Your task to perform on an android device: Open maps Image 0: 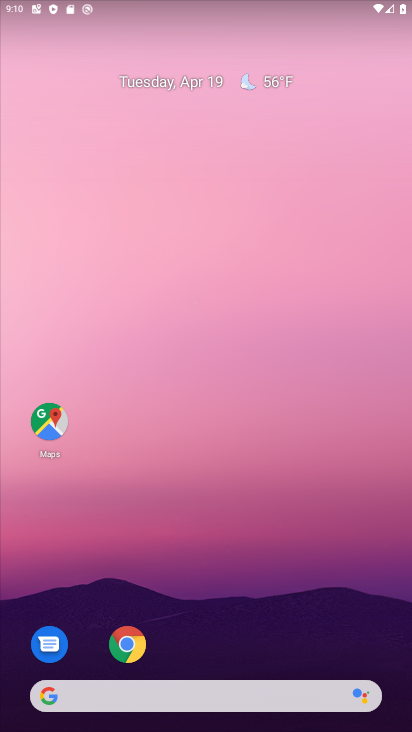
Step 0: click (55, 422)
Your task to perform on an android device: Open maps Image 1: 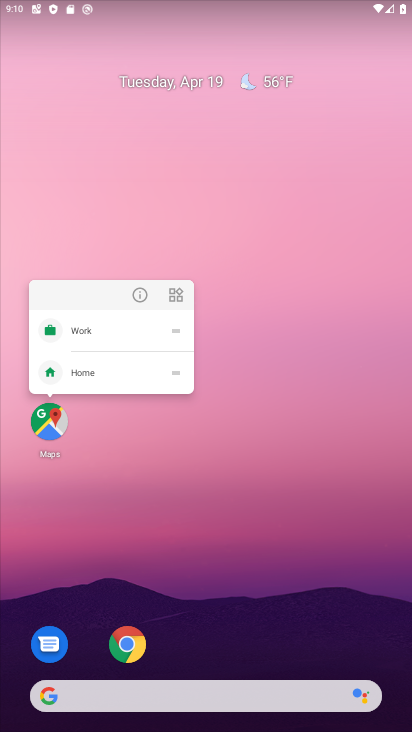
Step 1: click (42, 415)
Your task to perform on an android device: Open maps Image 2: 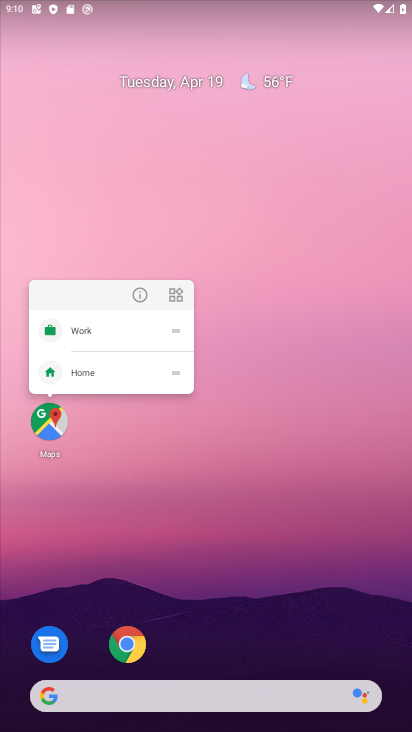
Step 2: click (42, 429)
Your task to perform on an android device: Open maps Image 3: 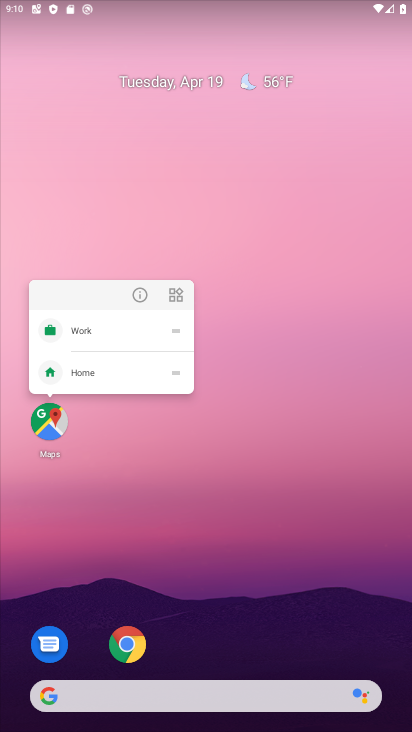
Step 3: click (45, 431)
Your task to perform on an android device: Open maps Image 4: 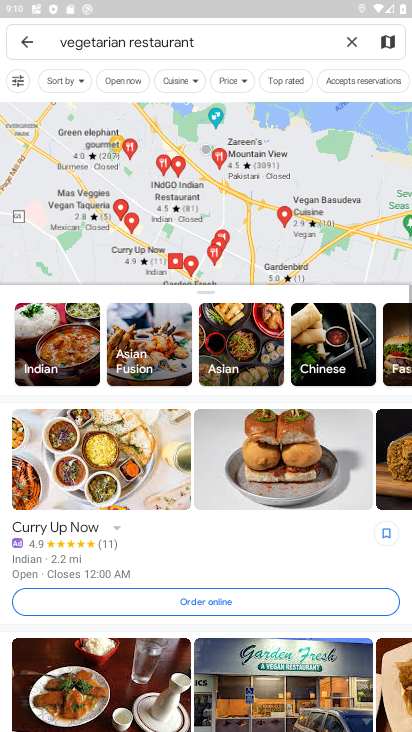
Step 4: click (33, 40)
Your task to perform on an android device: Open maps Image 5: 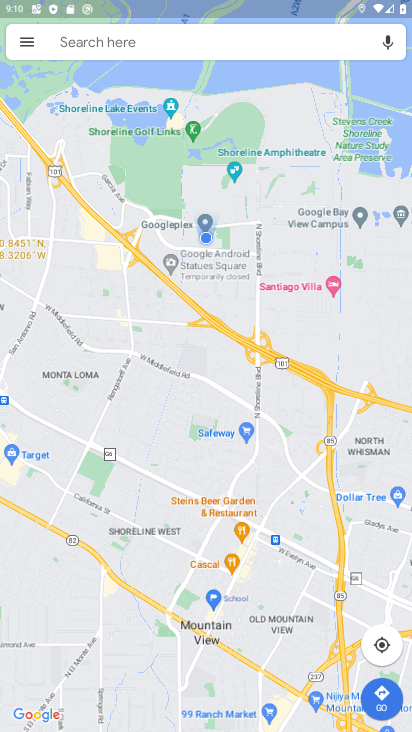
Step 5: task complete